Your task to perform on an android device: see tabs open on other devices in the chrome app Image 0: 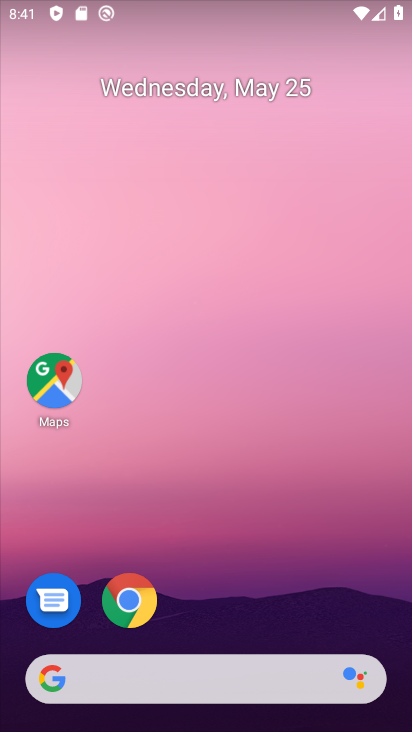
Step 0: drag from (306, 586) to (277, 9)
Your task to perform on an android device: see tabs open on other devices in the chrome app Image 1: 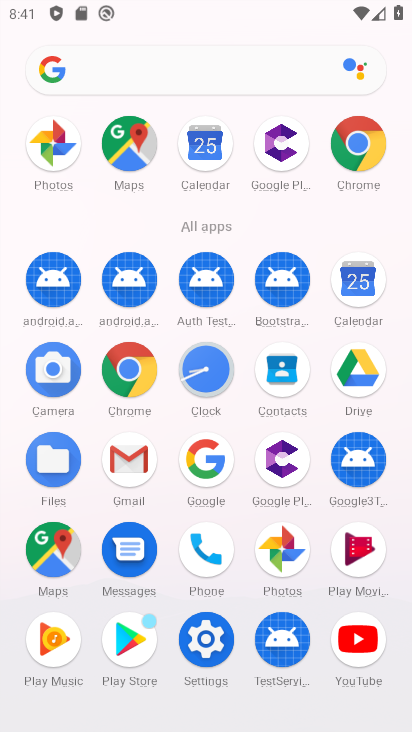
Step 1: drag from (4, 572) to (4, 280)
Your task to perform on an android device: see tabs open on other devices in the chrome app Image 2: 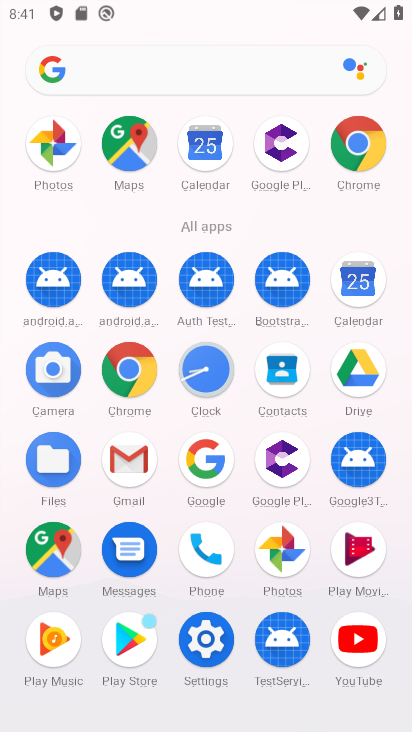
Step 2: drag from (14, 535) to (11, 239)
Your task to perform on an android device: see tabs open on other devices in the chrome app Image 3: 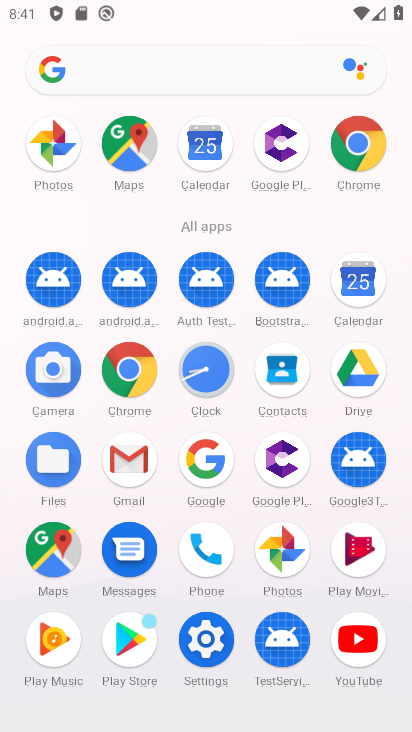
Step 3: click (129, 362)
Your task to perform on an android device: see tabs open on other devices in the chrome app Image 4: 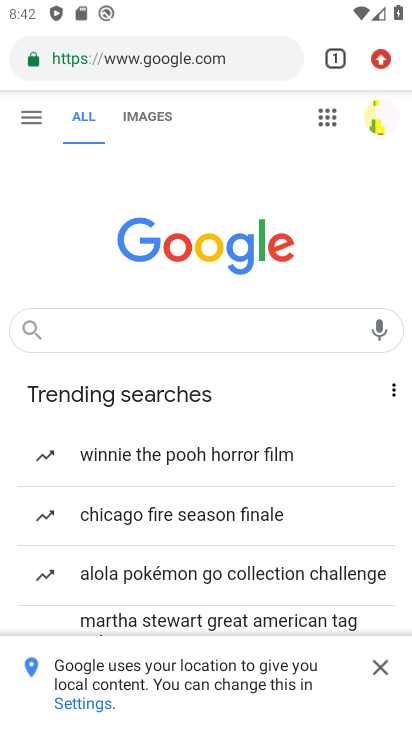
Step 4: task complete